Your task to perform on an android device: create a new album in the google photos Image 0: 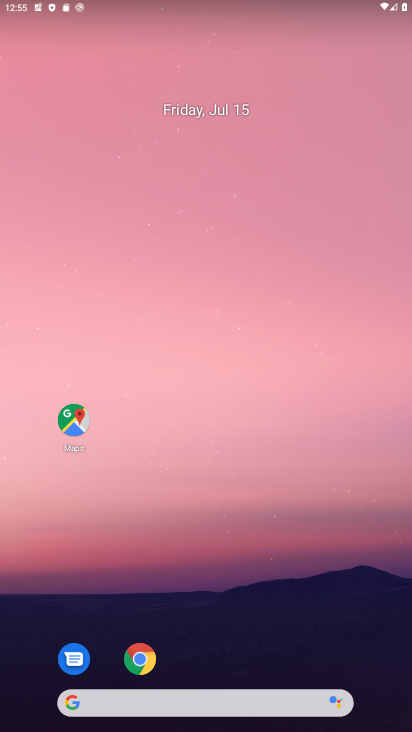
Step 0: drag from (185, 665) to (185, 247)
Your task to perform on an android device: create a new album in the google photos Image 1: 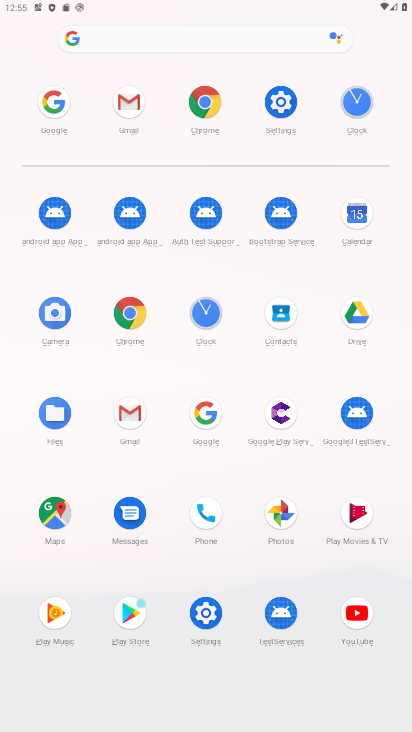
Step 1: click (283, 512)
Your task to perform on an android device: create a new album in the google photos Image 2: 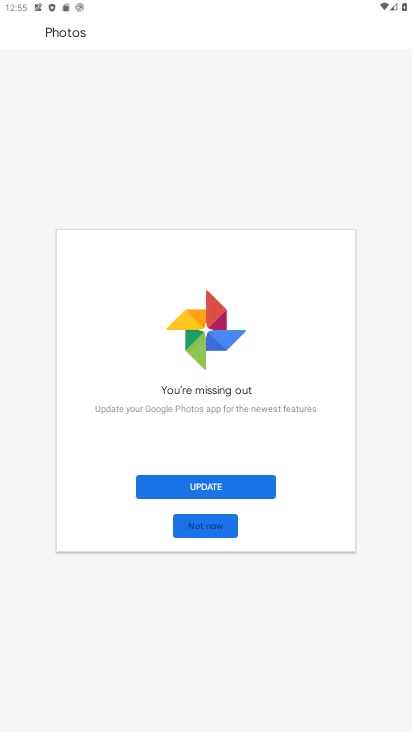
Step 2: click (197, 536)
Your task to perform on an android device: create a new album in the google photos Image 3: 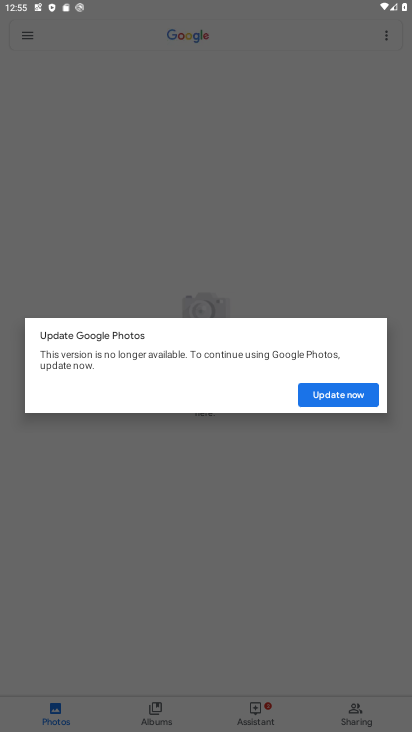
Step 3: click (345, 389)
Your task to perform on an android device: create a new album in the google photos Image 4: 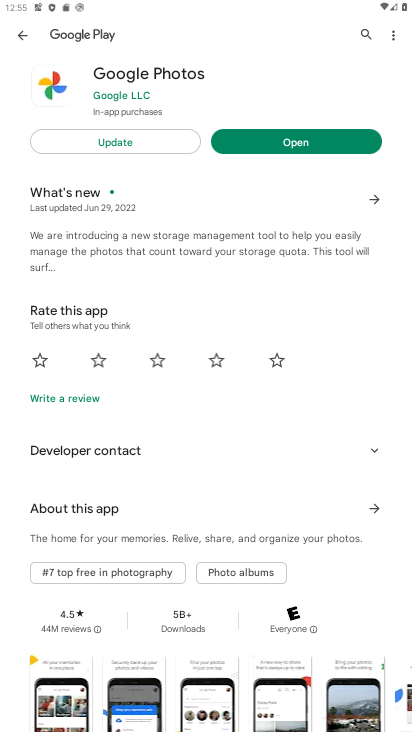
Step 4: click (269, 138)
Your task to perform on an android device: create a new album in the google photos Image 5: 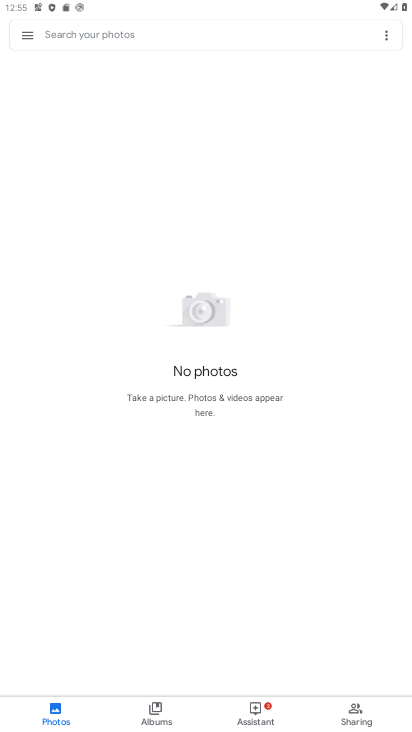
Step 5: click (384, 36)
Your task to perform on an android device: create a new album in the google photos Image 6: 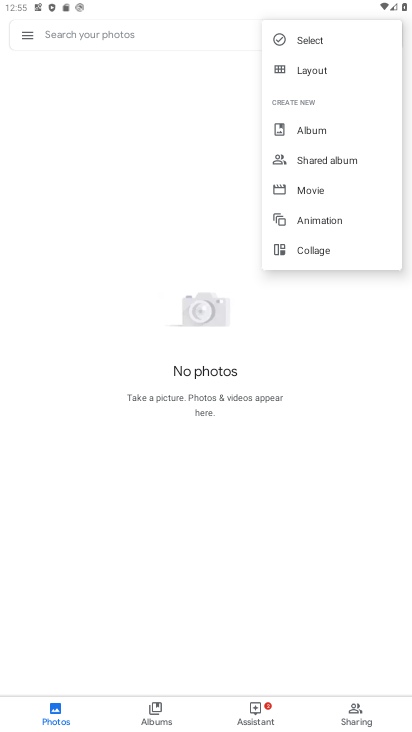
Step 6: click (309, 123)
Your task to perform on an android device: create a new album in the google photos Image 7: 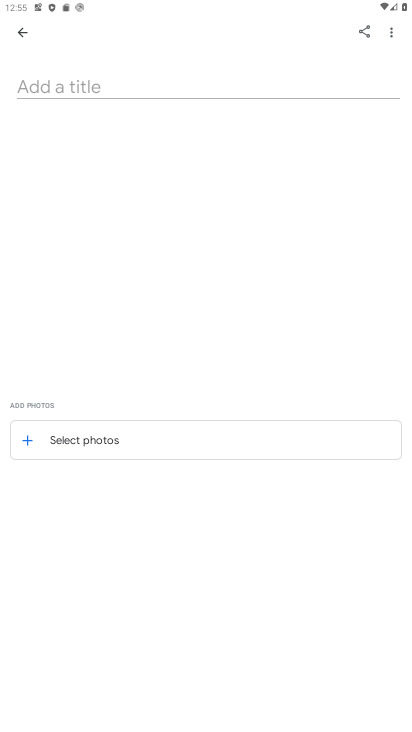
Step 7: click (107, 440)
Your task to perform on an android device: create a new album in the google photos Image 8: 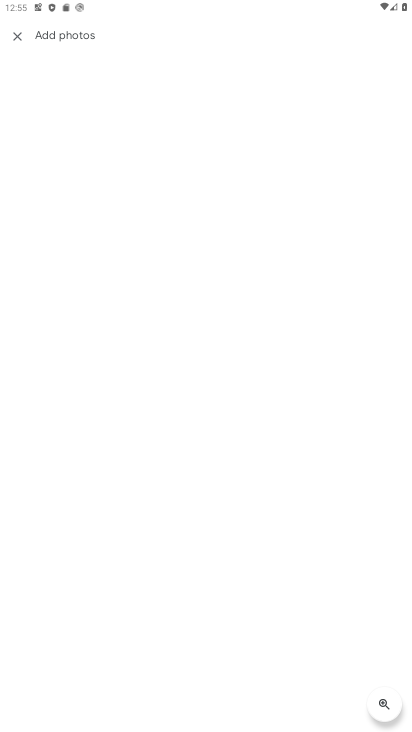
Step 8: click (20, 36)
Your task to perform on an android device: create a new album in the google photos Image 9: 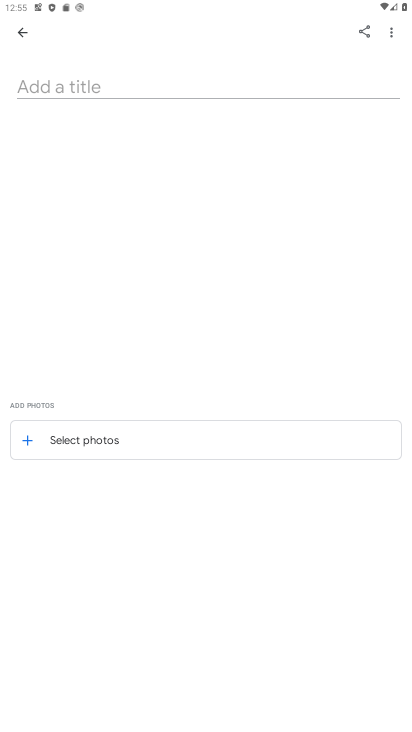
Step 9: click (112, 89)
Your task to perform on an android device: create a new album in the google photos Image 10: 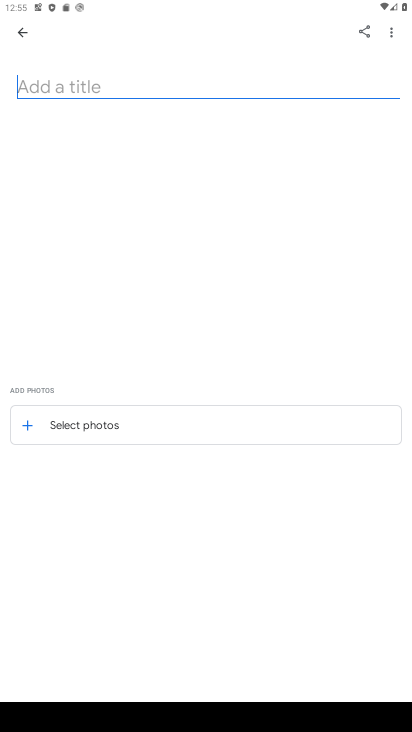
Step 10: type "fgfhfx"
Your task to perform on an android device: create a new album in the google photos Image 11: 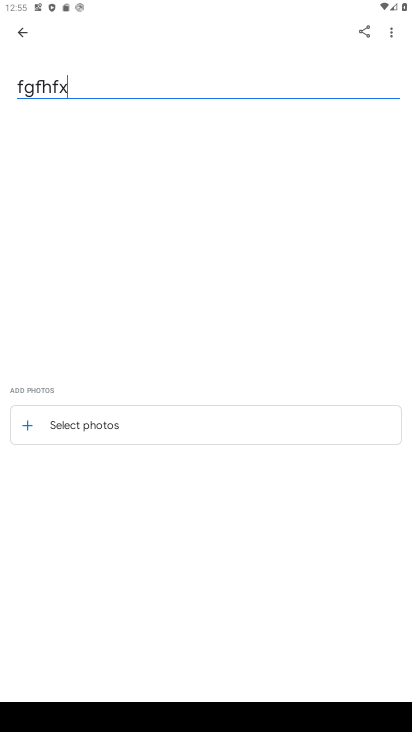
Step 11: click (399, 31)
Your task to perform on an android device: create a new album in the google photos Image 12: 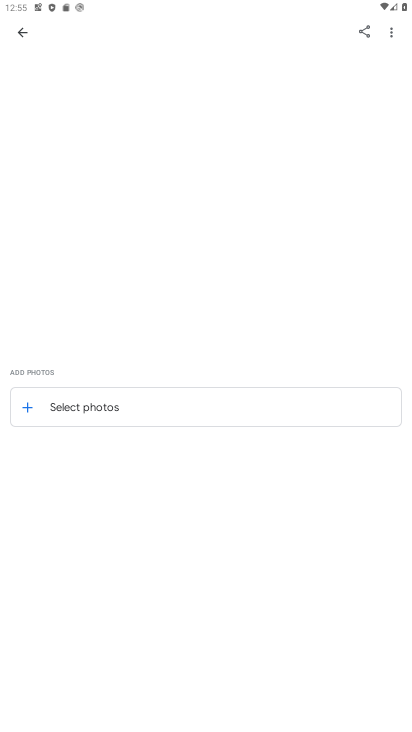
Step 12: click (388, 37)
Your task to perform on an android device: create a new album in the google photos Image 13: 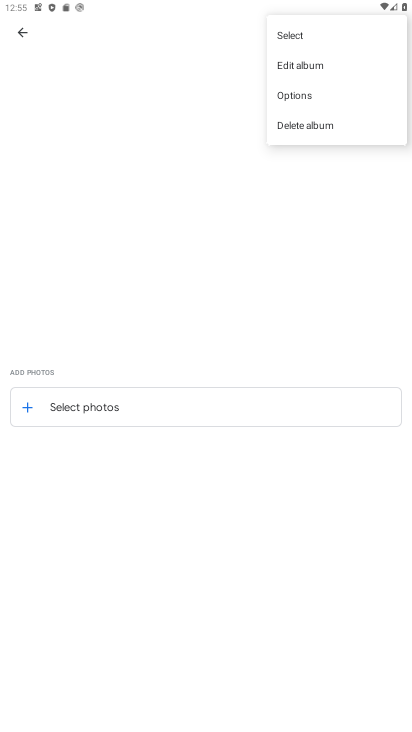
Step 13: task complete